Your task to perform on an android device: delete a single message in the gmail app Image 0: 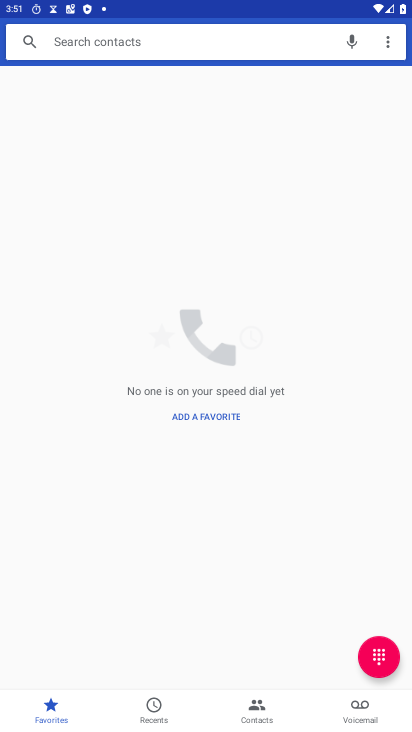
Step 0: press home button
Your task to perform on an android device: delete a single message in the gmail app Image 1: 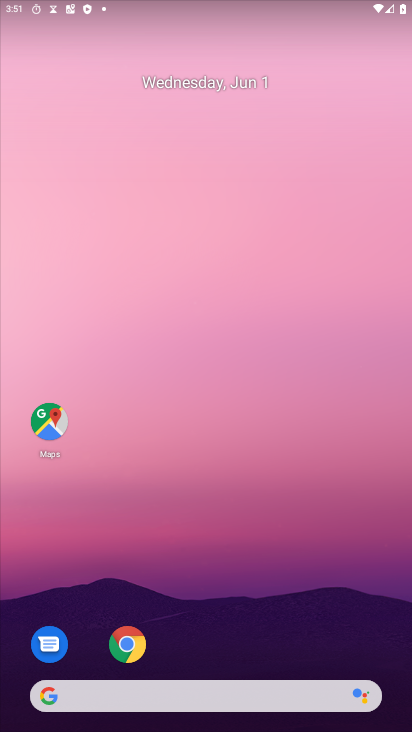
Step 1: drag from (312, 627) to (279, 145)
Your task to perform on an android device: delete a single message in the gmail app Image 2: 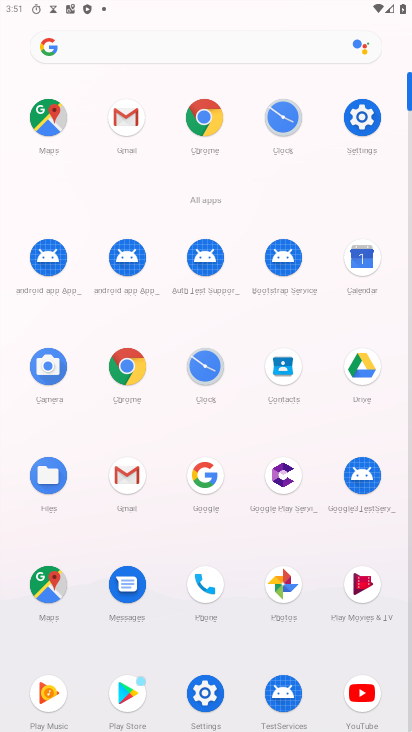
Step 2: click (133, 115)
Your task to perform on an android device: delete a single message in the gmail app Image 3: 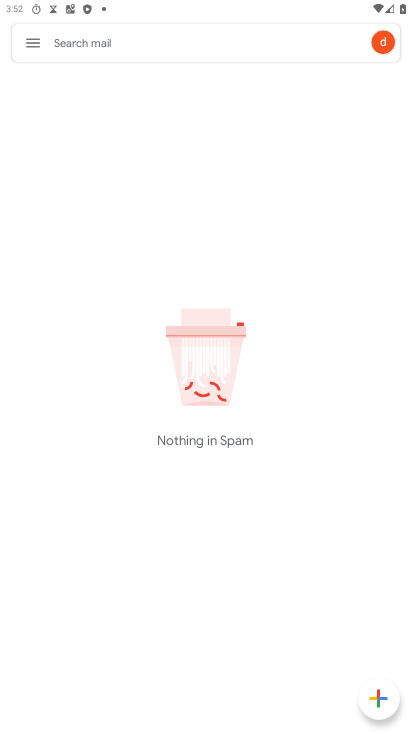
Step 3: task complete